Your task to perform on an android device: Open Yahoo.com Image 0: 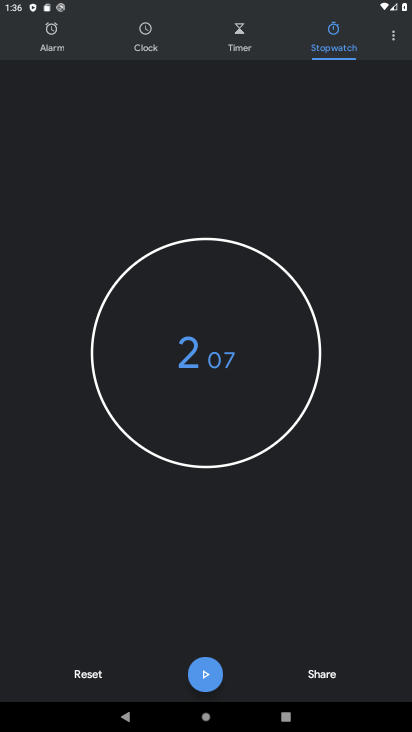
Step 0: press home button
Your task to perform on an android device: Open Yahoo.com Image 1: 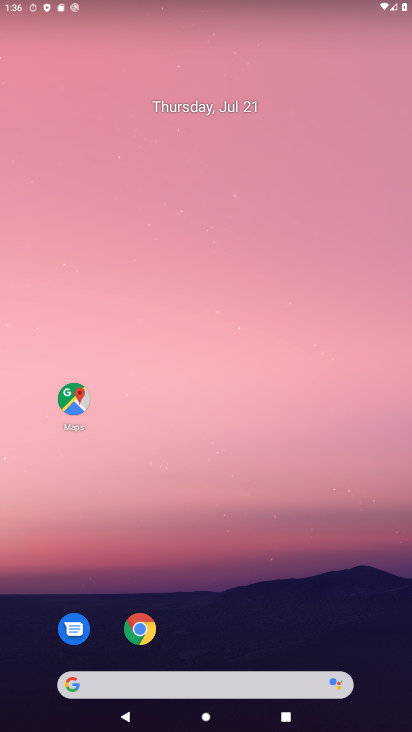
Step 1: click (99, 687)
Your task to perform on an android device: Open Yahoo.com Image 2: 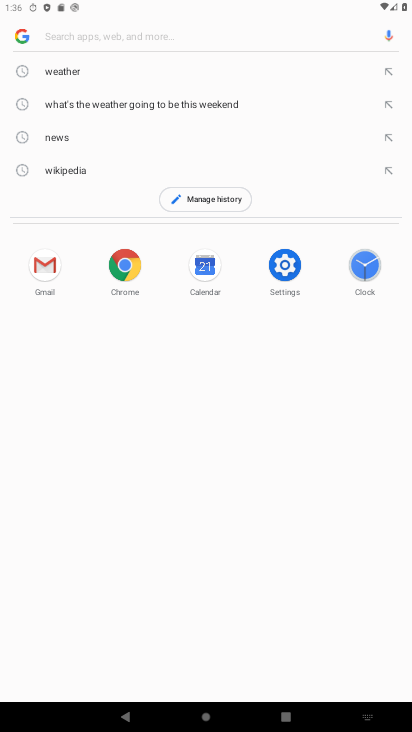
Step 2: type "Yahoo.com"
Your task to perform on an android device: Open Yahoo.com Image 3: 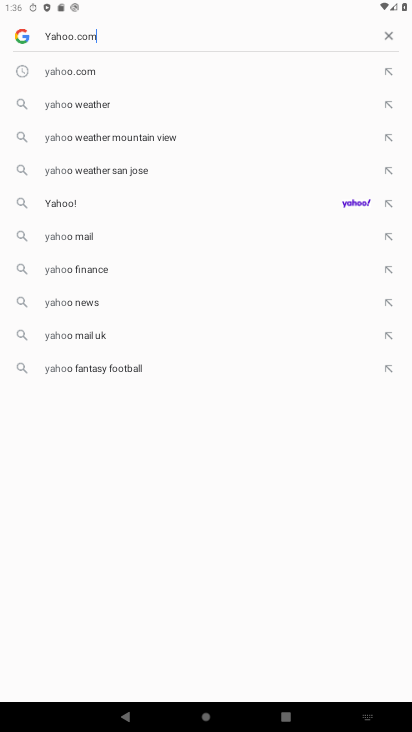
Step 3: type ""
Your task to perform on an android device: Open Yahoo.com Image 4: 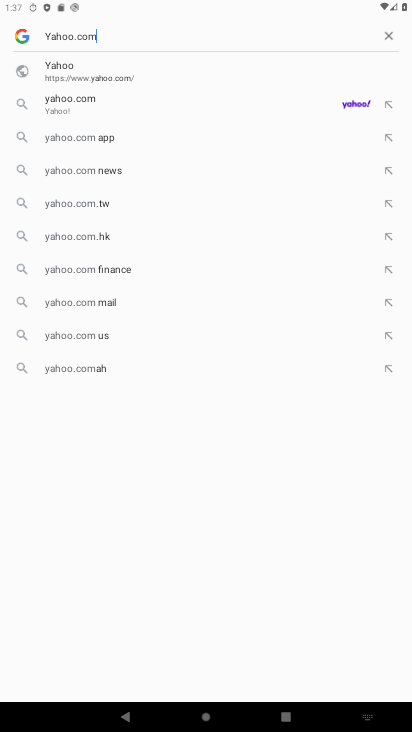
Step 4: click (74, 81)
Your task to perform on an android device: Open Yahoo.com Image 5: 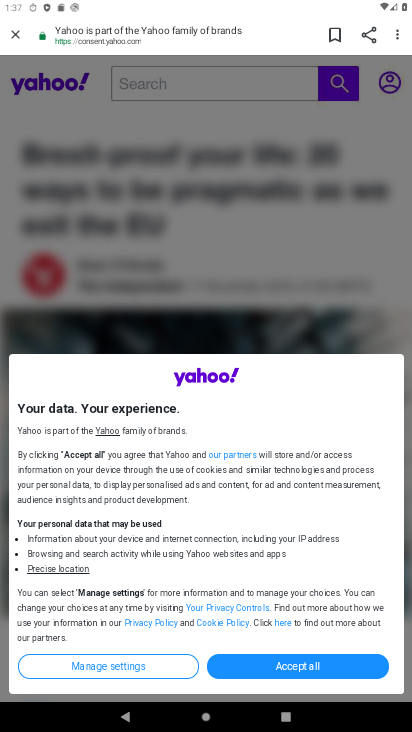
Step 5: task complete